Your task to perform on an android device: Check the news Image 0: 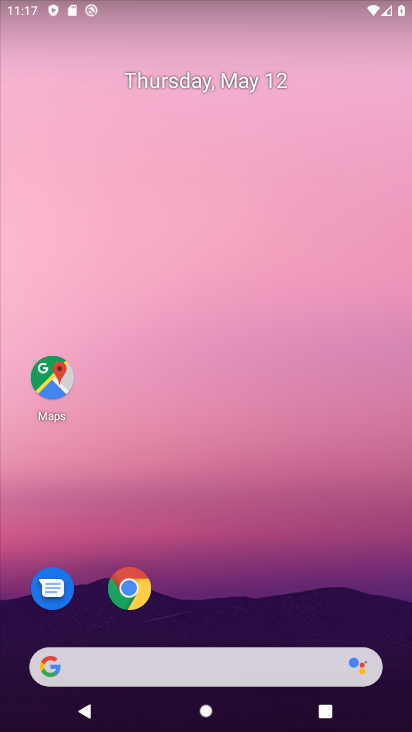
Step 0: drag from (195, 594) to (175, 241)
Your task to perform on an android device: Check the news Image 1: 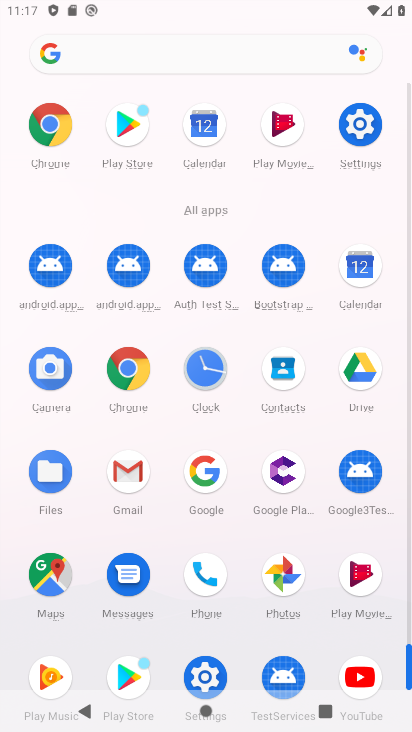
Step 1: drag from (243, 632) to (255, 213)
Your task to perform on an android device: Check the news Image 2: 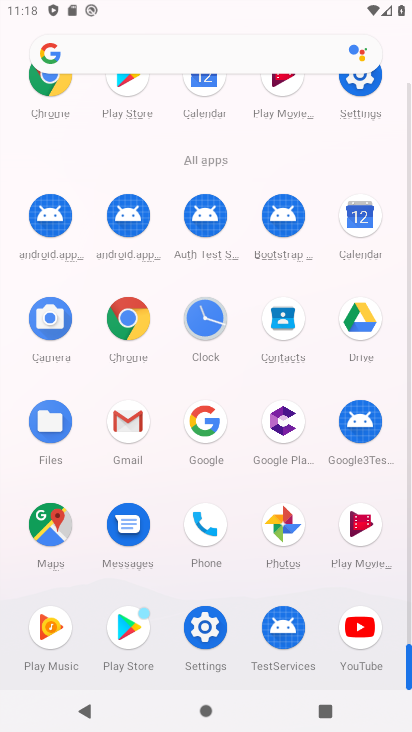
Step 2: click (365, 224)
Your task to perform on an android device: Check the news Image 3: 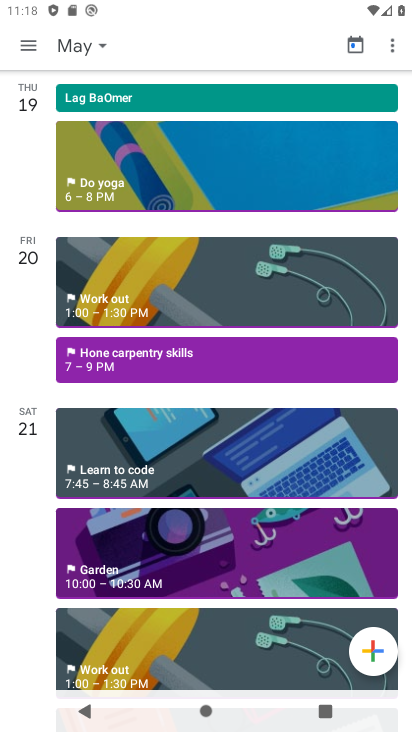
Step 3: drag from (300, 228) to (342, 731)
Your task to perform on an android device: Check the news Image 4: 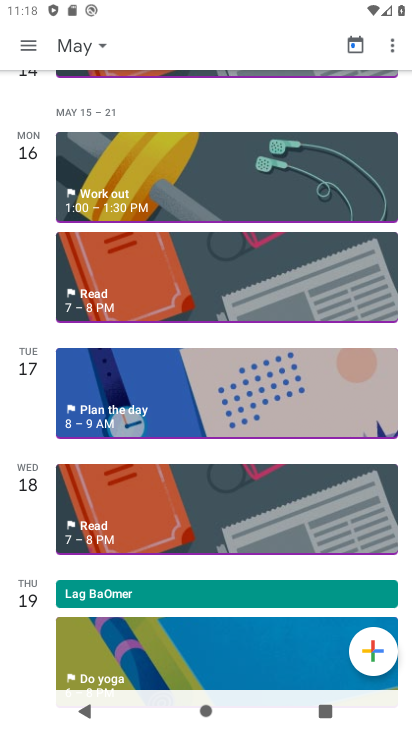
Step 4: click (78, 55)
Your task to perform on an android device: Check the news Image 5: 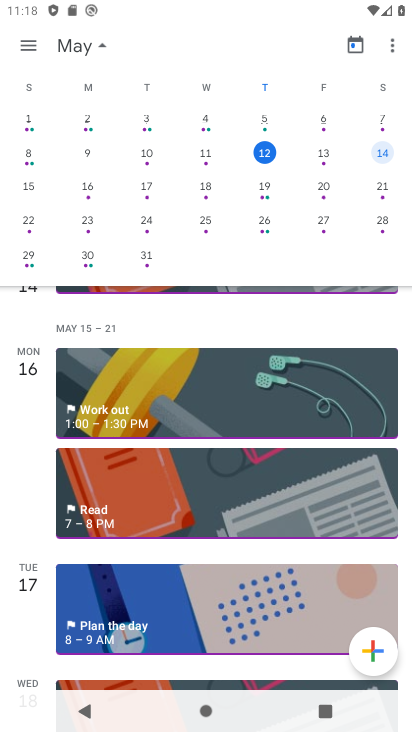
Step 5: drag from (221, 603) to (230, 399)
Your task to perform on an android device: Check the news Image 6: 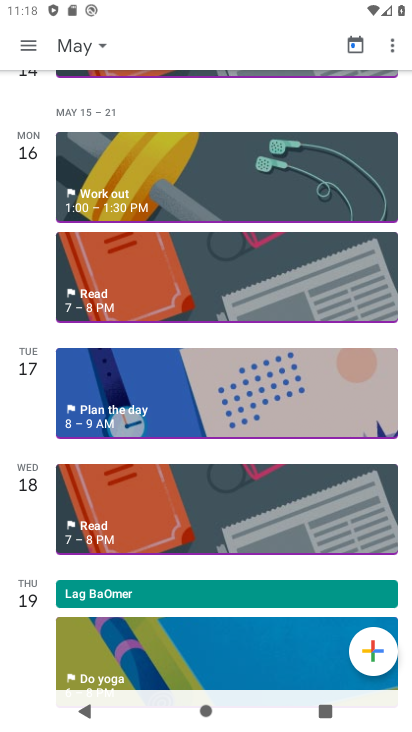
Step 6: drag from (227, 341) to (329, 691)
Your task to perform on an android device: Check the news Image 7: 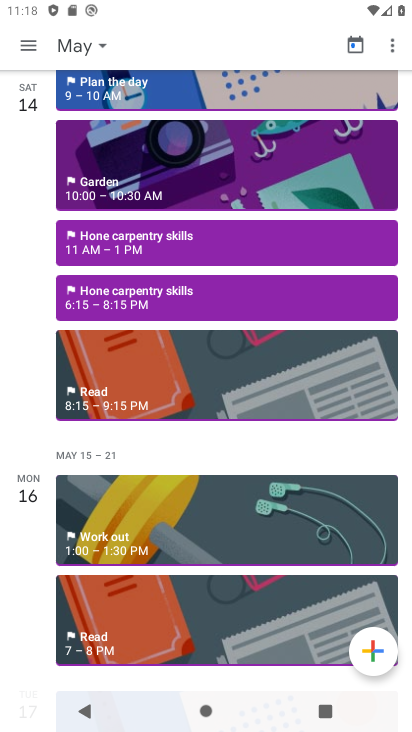
Step 7: drag from (231, 187) to (276, 438)
Your task to perform on an android device: Check the news Image 8: 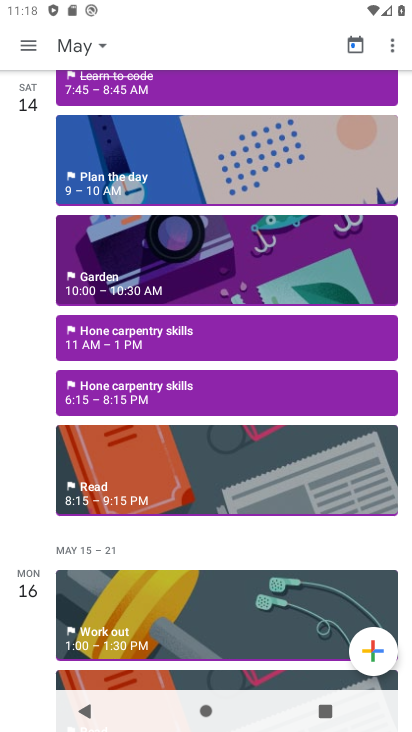
Step 8: drag from (247, 165) to (409, 660)
Your task to perform on an android device: Check the news Image 9: 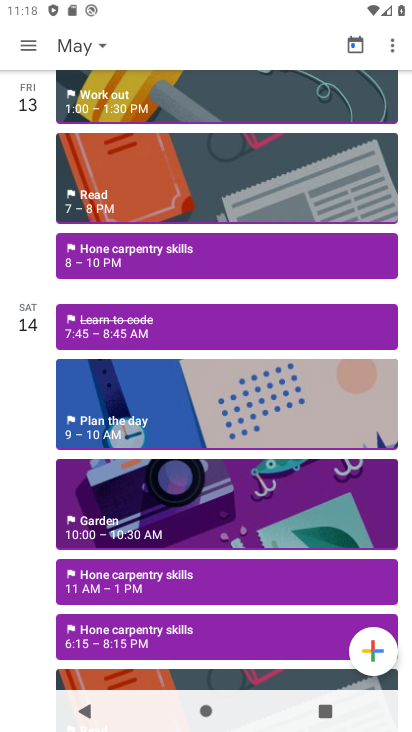
Step 9: drag from (230, 183) to (358, 669)
Your task to perform on an android device: Check the news Image 10: 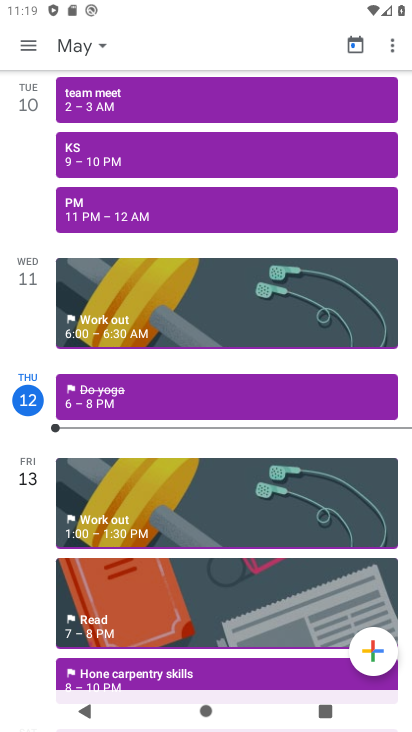
Step 10: click (102, 49)
Your task to perform on an android device: Check the news Image 11: 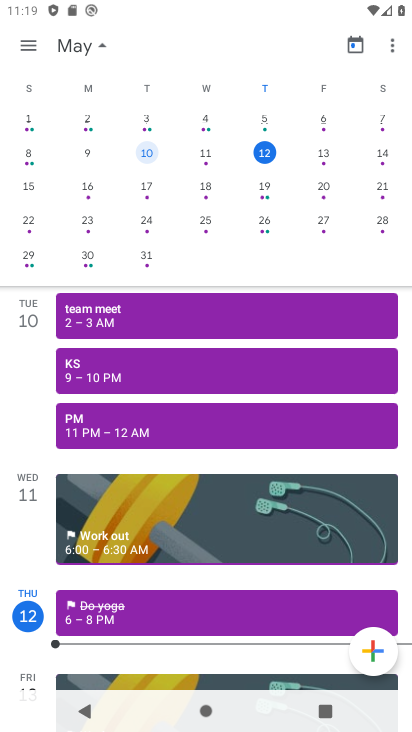
Step 11: press home button
Your task to perform on an android device: Check the news Image 12: 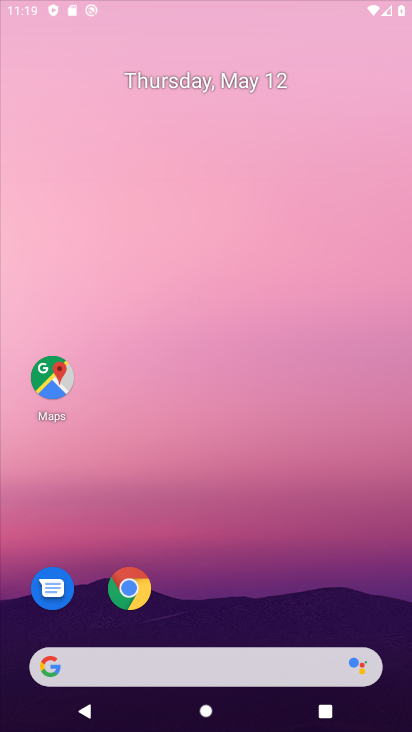
Step 12: drag from (250, 516) to (289, 116)
Your task to perform on an android device: Check the news Image 13: 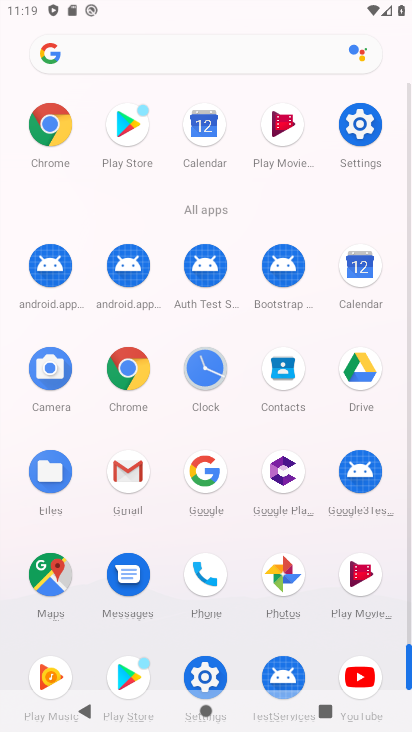
Step 13: click (183, 54)
Your task to perform on an android device: Check the news Image 14: 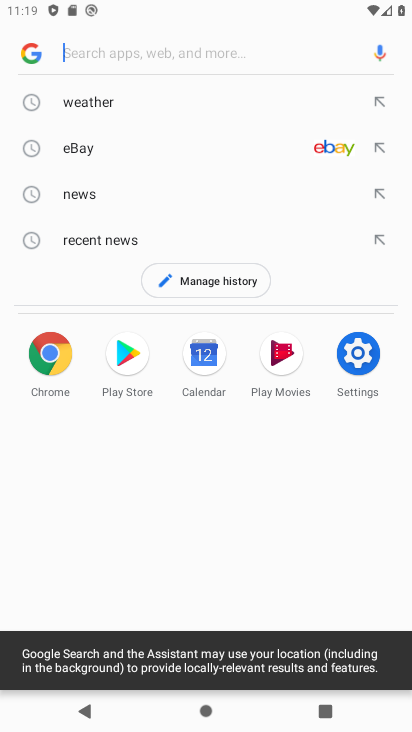
Step 14: click (93, 200)
Your task to perform on an android device: Check the news Image 15: 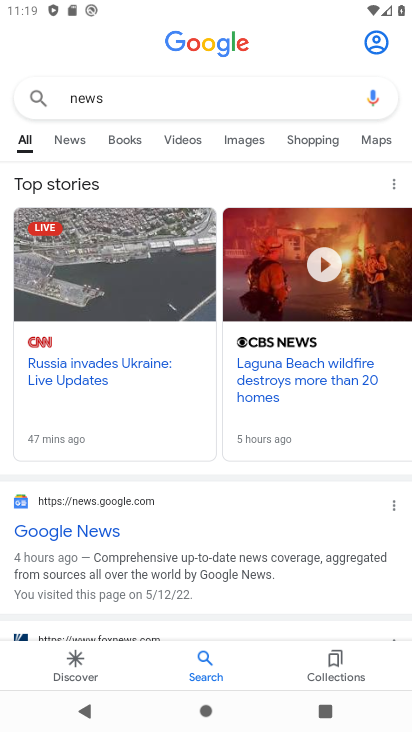
Step 15: task complete